Your task to perform on an android device: Open my contact list Image 0: 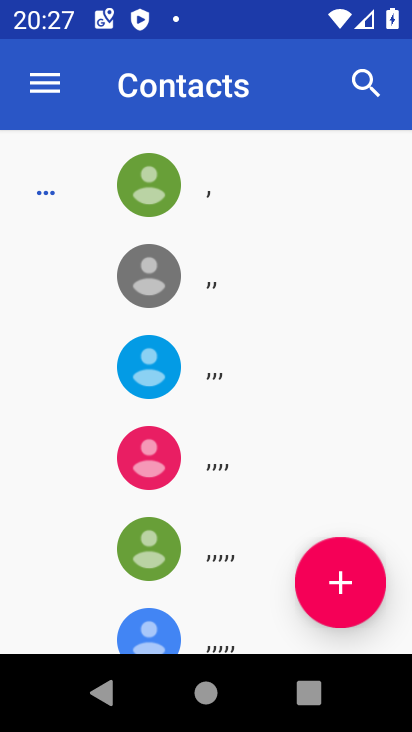
Step 0: drag from (318, 212) to (270, 104)
Your task to perform on an android device: Open my contact list Image 1: 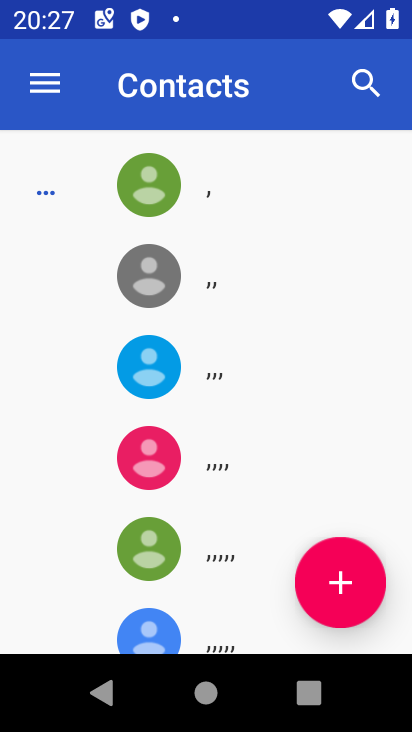
Step 1: task complete